Your task to perform on an android device: Open Google Maps and go to "Timeline" Image 0: 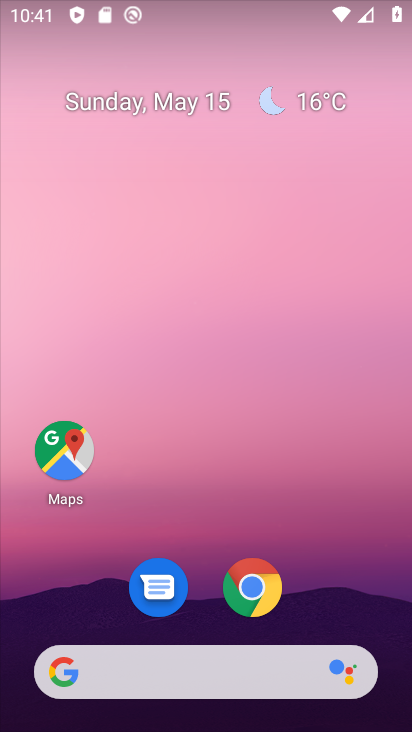
Step 0: drag from (311, 538) to (272, 35)
Your task to perform on an android device: Open Google Maps and go to "Timeline" Image 1: 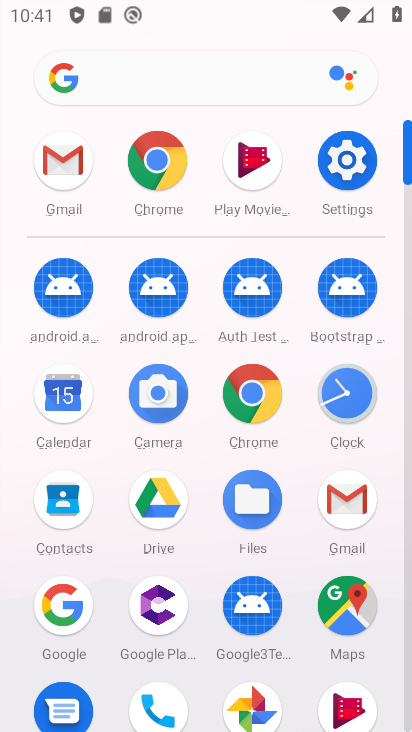
Step 1: drag from (10, 588) to (14, 260)
Your task to perform on an android device: Open Google Maps and go to "Timeline" Image 2: 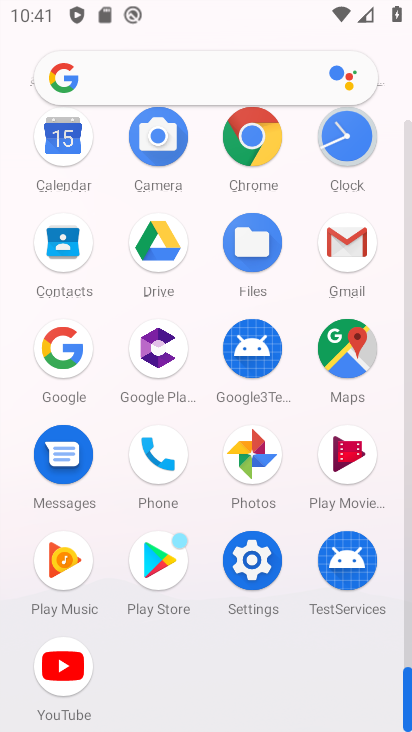
Step 2: click (346, 345)
Your task to perform on an android device: Open Google Maps and go to "Timeline" Image 3: 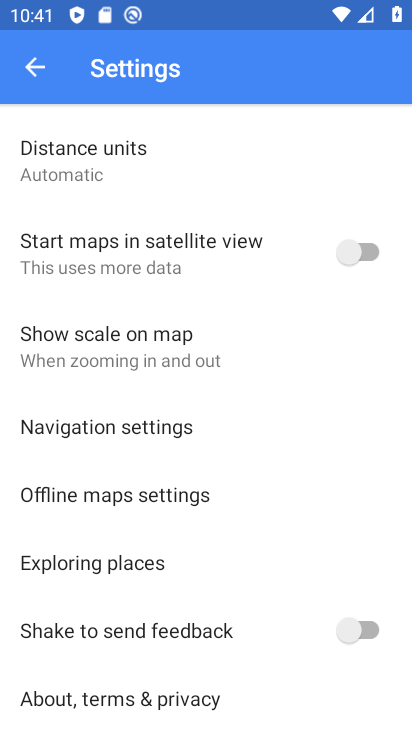
Step 3: click (28, 67)
Your task to perform on an android device: Open Google Maps and go to "Timeline" Image 4: 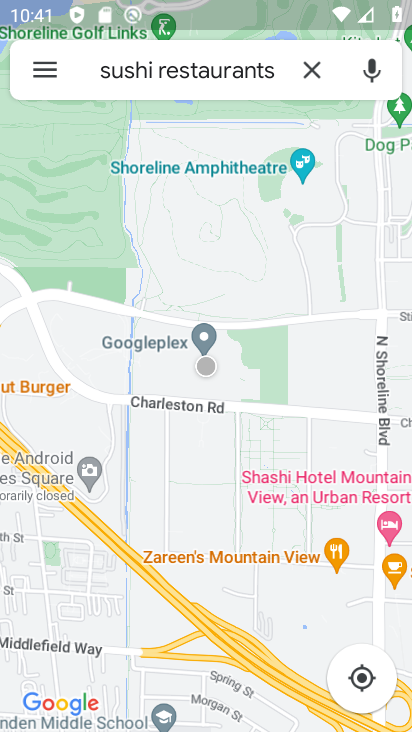
Step 4: click (46, 63)
Your task to perform on an android device: Open Google Maps and go to "Timeline" Image 5: 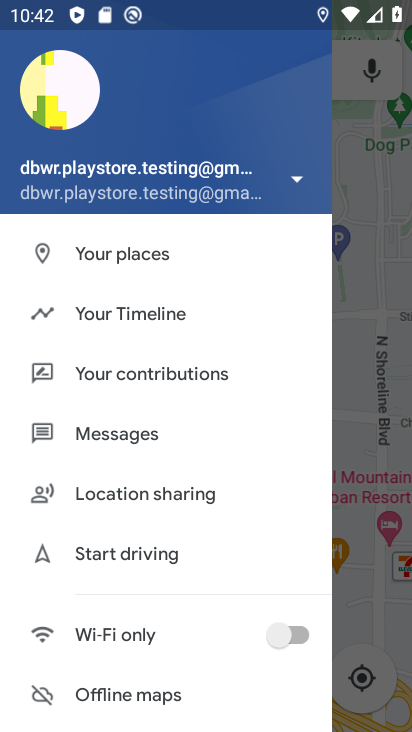
Step 5: click (165, 309)
Your task to perform on an android device: Open Google Maps and go to "Timeline" Image 6: 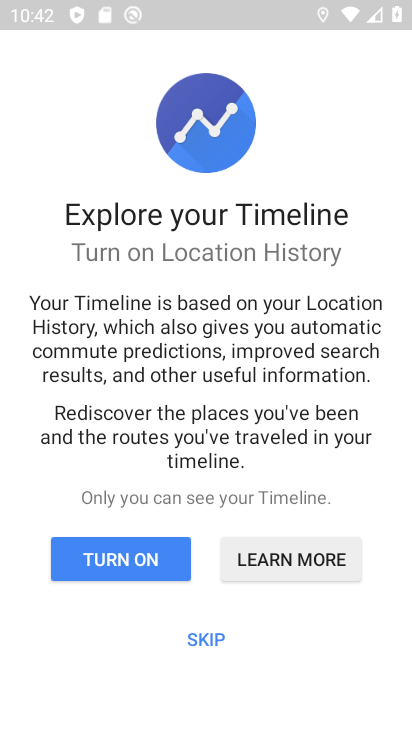
Step 6: click (193, 633)
Your task to perform on an android device: Open Google Maps and go to "Timeline" Image 7: 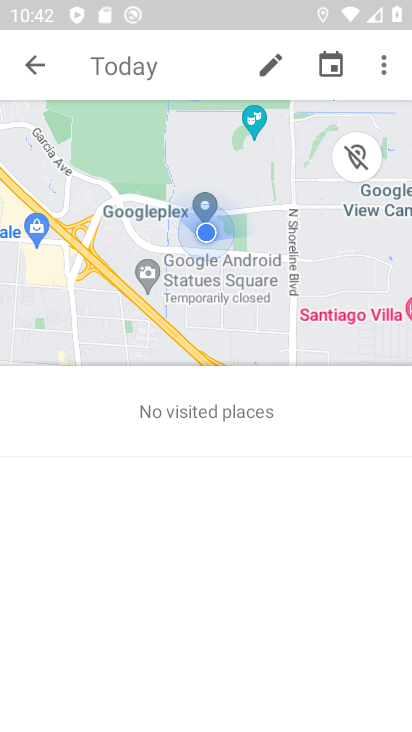
Step 7: task complete